Your task to perform on an android device: turn off notifications settings in the gmail app Image 0: 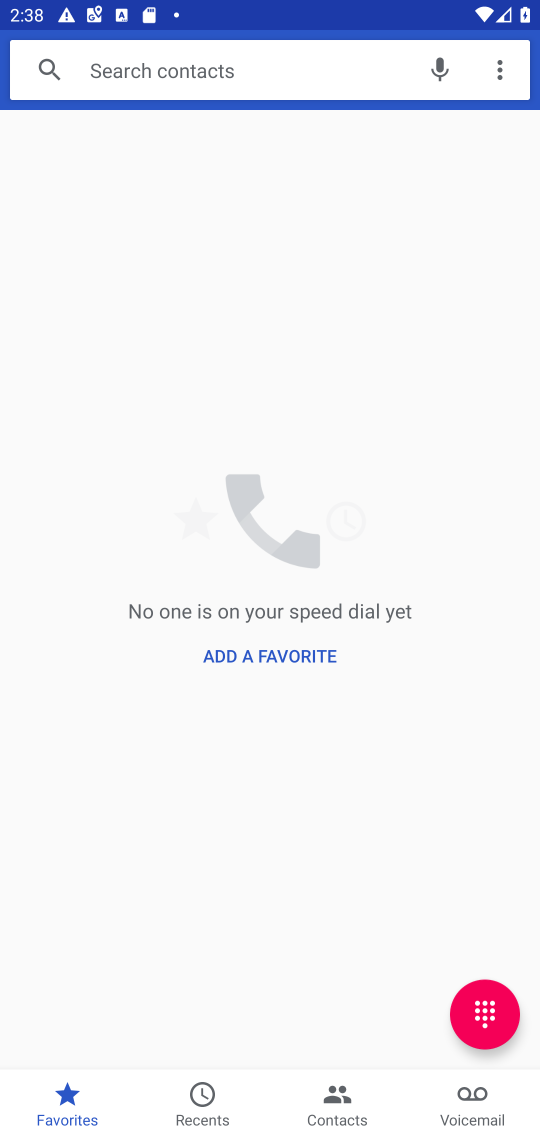
Step 0: press home button
Your task to perform on an android device: turn off notifications settings in the gmail app Image 1: 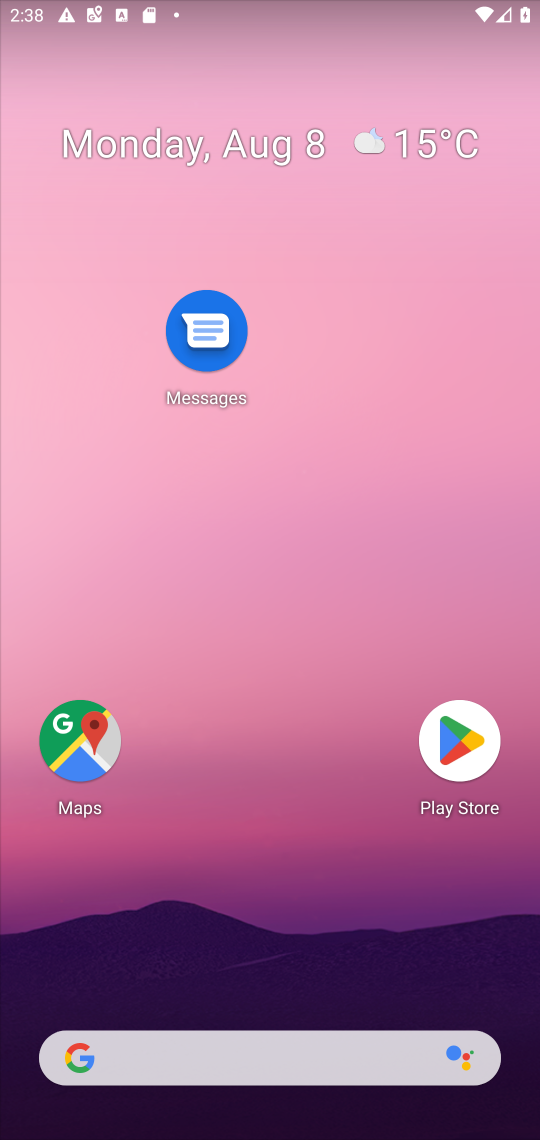
Step 1: drag from (247, 1049) to (240, 282)
Your task to perform on an android device: turn off notifications settings in the gmail app Image 2: 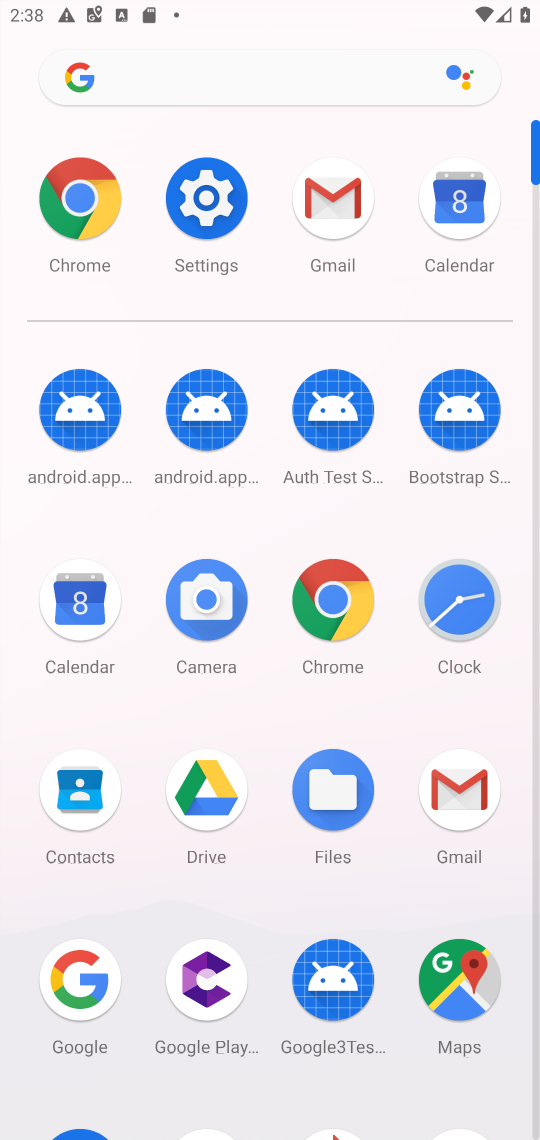
Step 2: click (476, 803)
Your task to perform on an android device: turn off notifications settings in the gmail app Image 3: 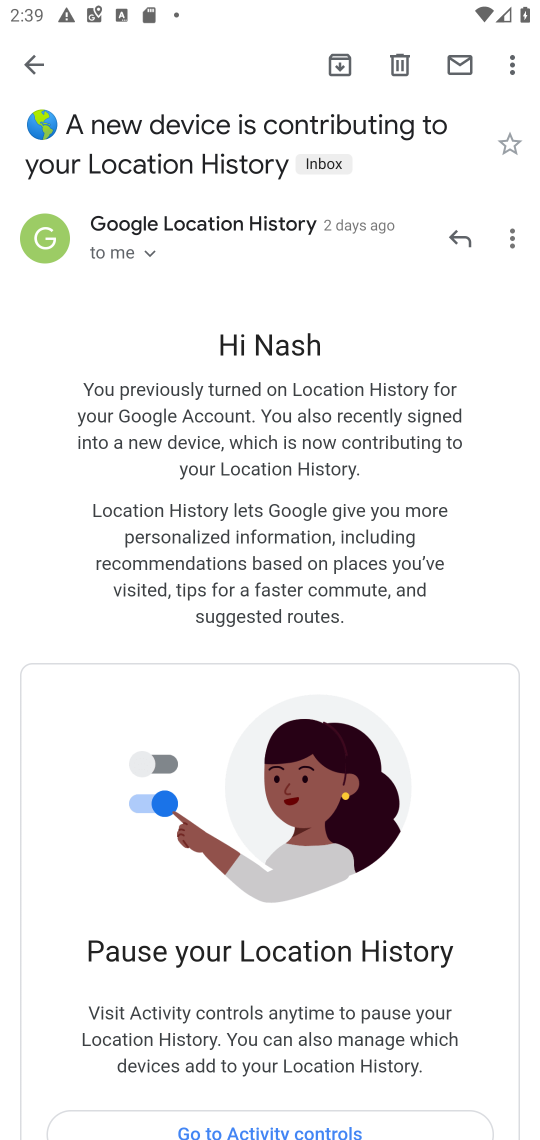
Step 3: press back button
Your task to perform on an android device: turn off notifications settings in the gmail app Image 4: 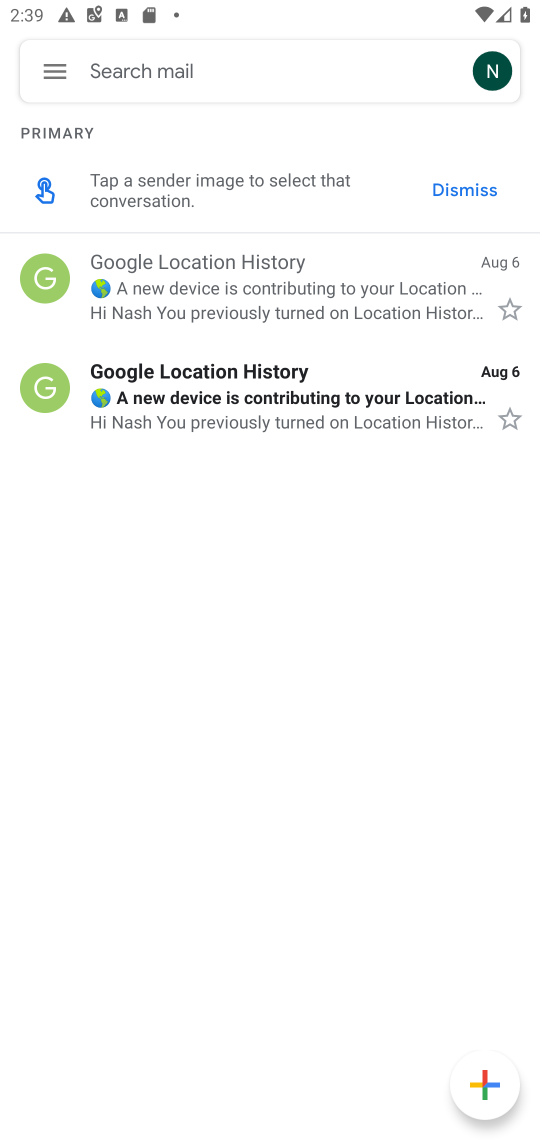
Step 4: click (35, 80)
Your task to perform on an android device: turn off notifications settings in the gmail app Image 5: 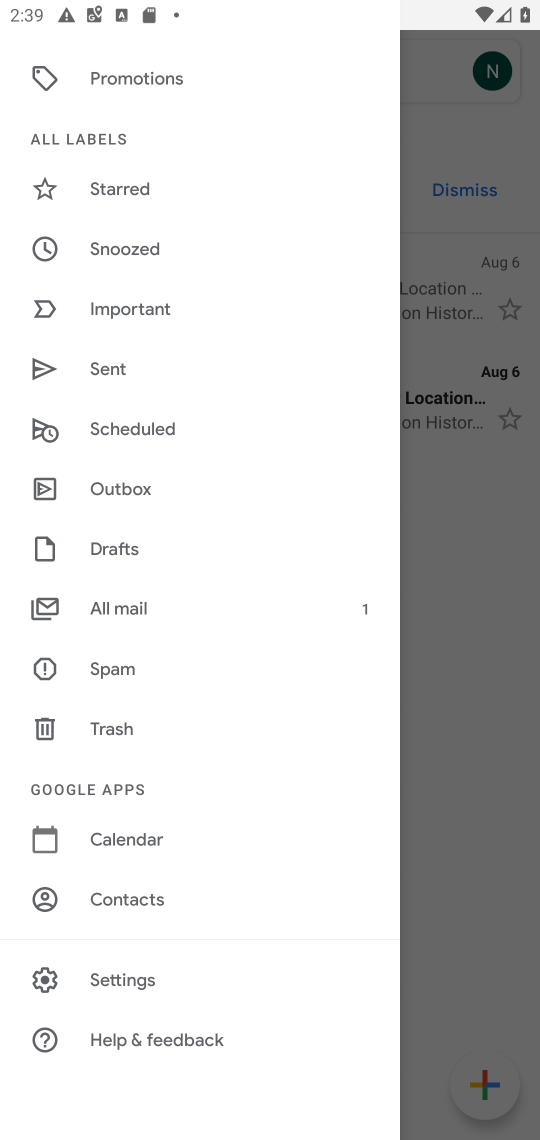
Step 5: click (127, 969)
Your task to perform on an android device: turn off notifications settings in the gmail app Image 6: 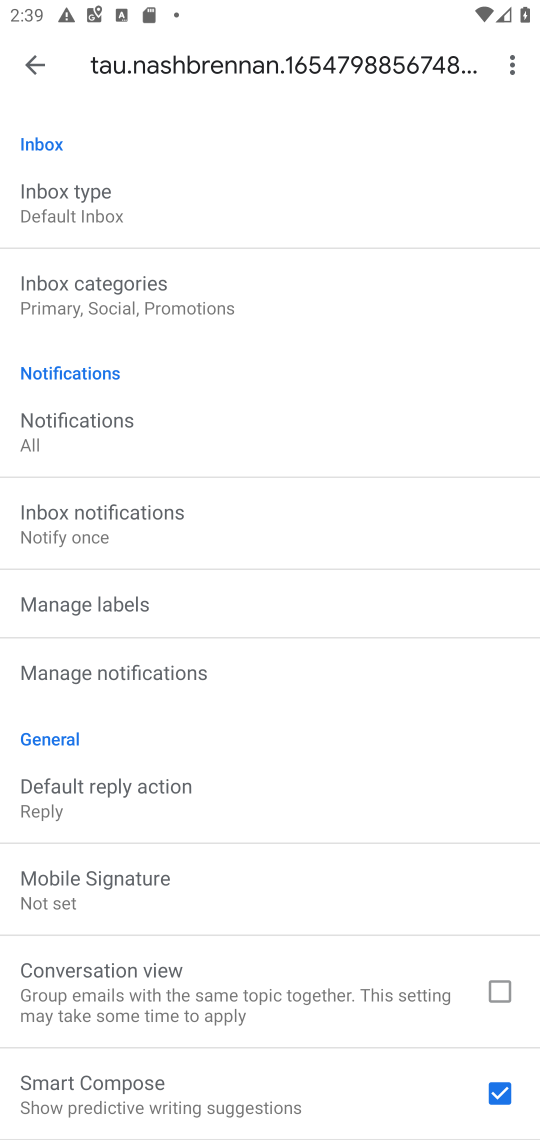
Step 6: click (145, 675)
Your task to perform on an android device: turn off notifications settings in the gmail app Image 7: 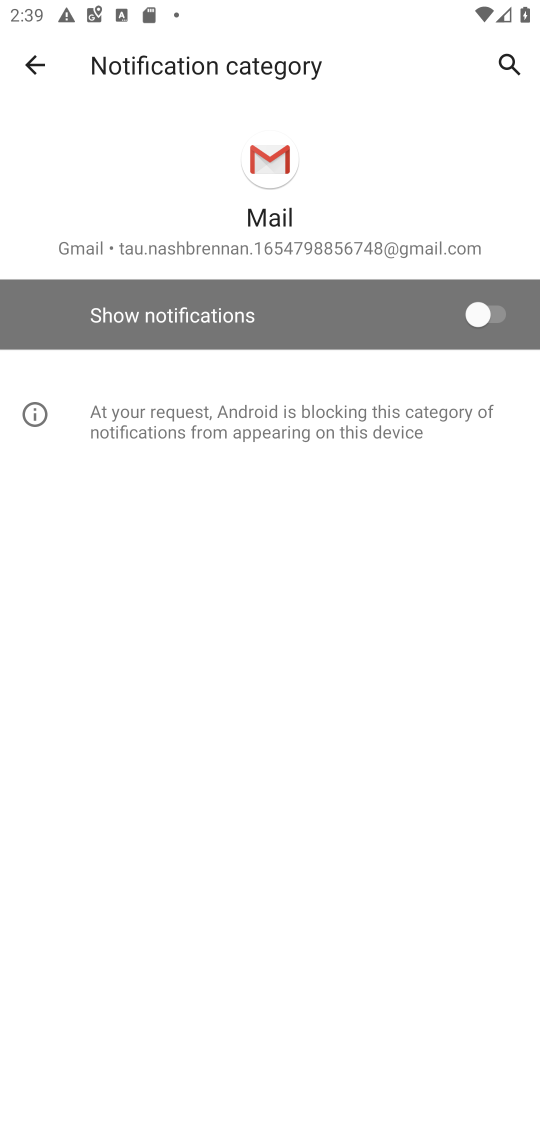
Step 7: task complete